Your task to perform on an android device: turn off wifi Image 0: 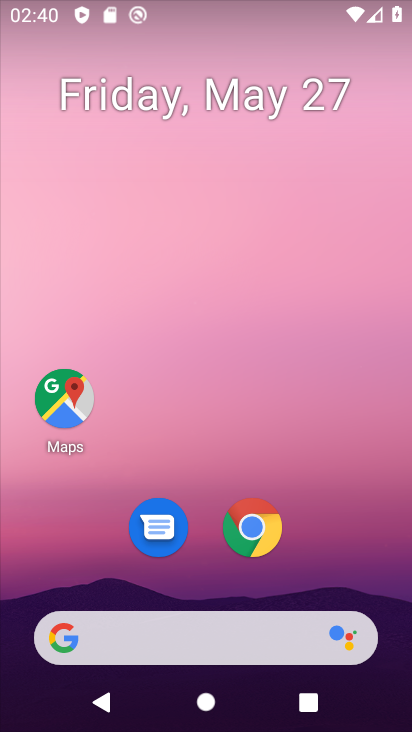
Step 0: drag from (233, 600) to (181, 66)
Your task to perform on an android device: turn off wifi Image 1: 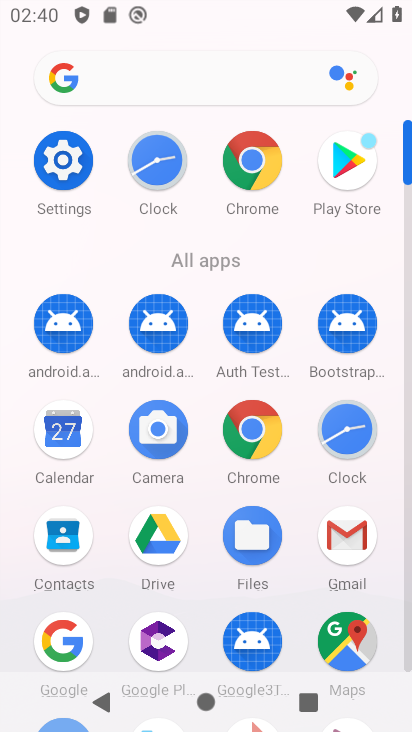
Step 1: click (75, 180)
Your task to perform on an android device: turn off wifi Image 2: 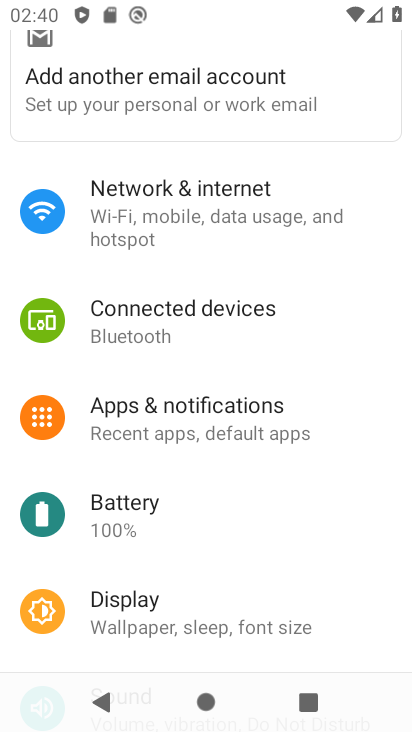
Step 2: click (127, 242)
Your task to perform on an android device: turn off wifi Image 3: 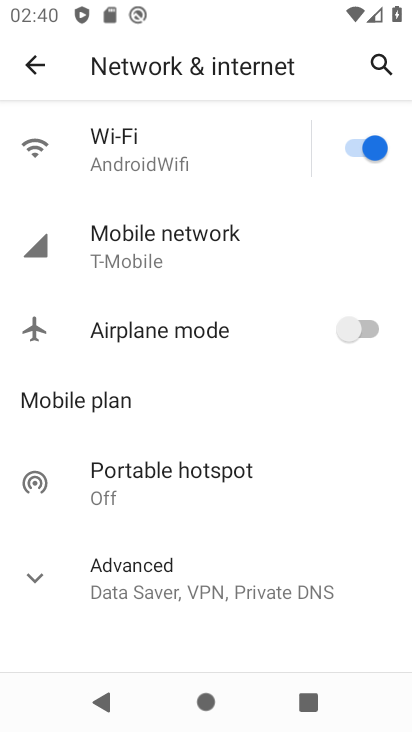
Step 3: click (349, 152)
Your task to perform on an android device: turn off wifi Image 4: 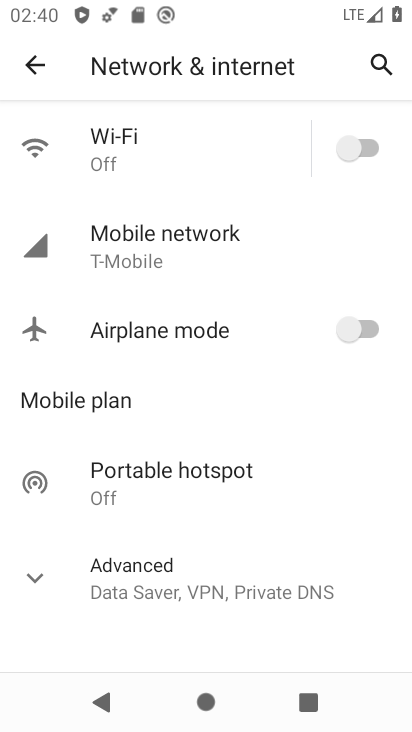
Step 4: task complete